Your task to perform on an android device: Open ESPN.com Image 0: 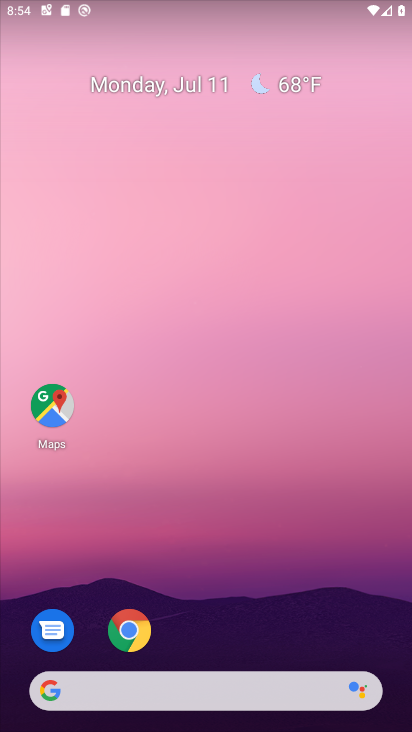
Step 0: click (199, 659)
Your task to perform on an android device: Open ESPN.com Image 1: 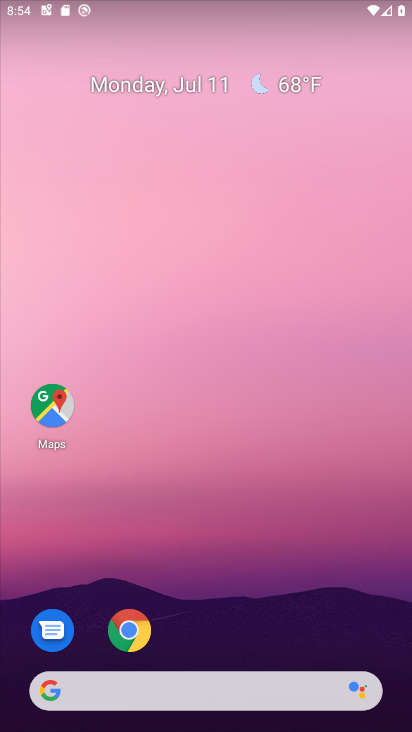
Step 1: click (127, 635)
Your task to perform on an android device: Open ESPN.com Image 2: 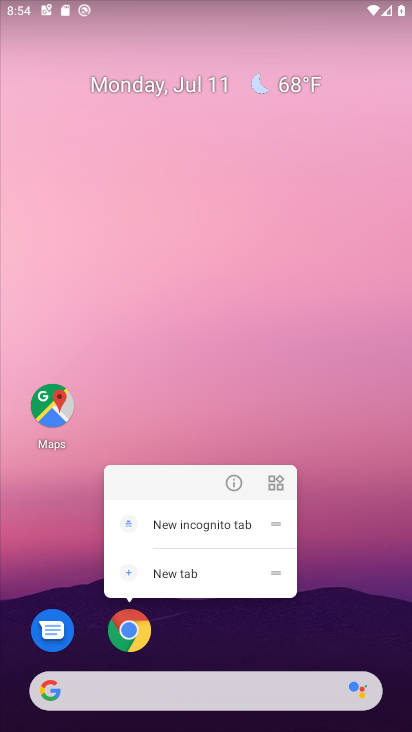
Step 2: click (127, 637)
Your task to perform on an android device: Open ESPN.com Image 3: 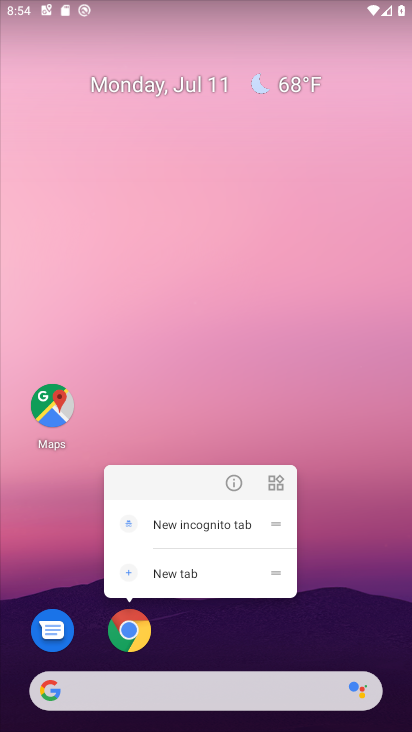
Step 3: click (129, 632)
Your task to perform on an android device: Open ESPN.com Image 4: 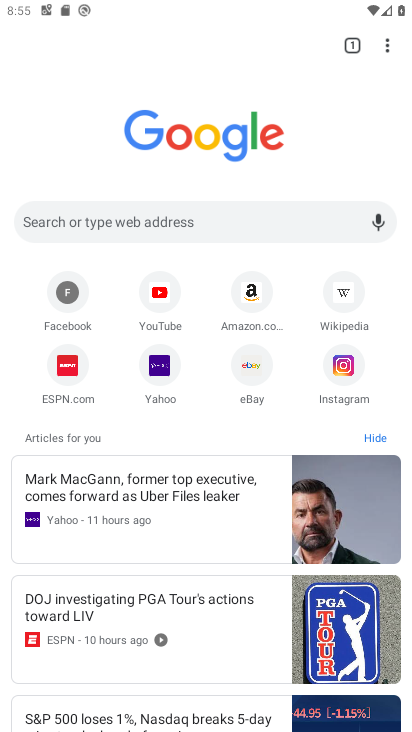
Step 4: click (67, 367)
Your task to perform on an android device: Open ESPN.com Image 5: 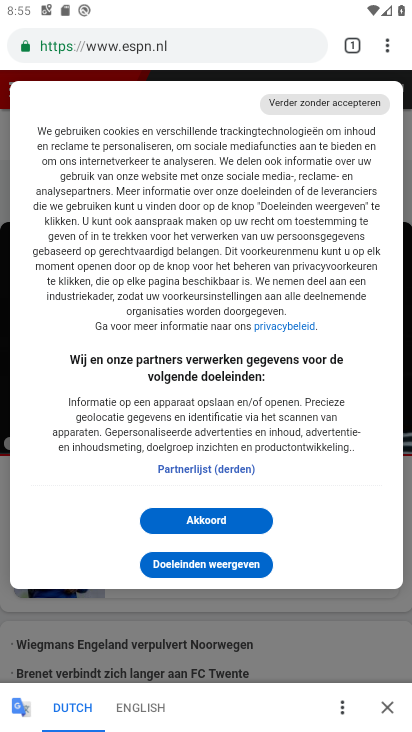
Step 5: task complete